Your task to perform on an android device: toggle data saver in the chrome app Image 0: 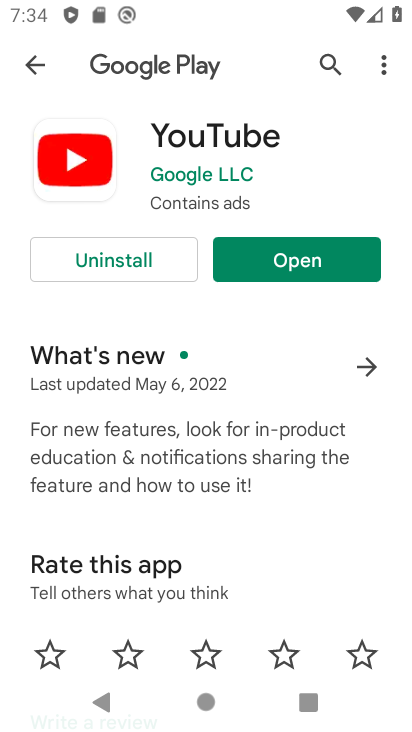
Step 0: press home button
Your task to perform on an android device: toggle data saver in the chrome app Image 1: 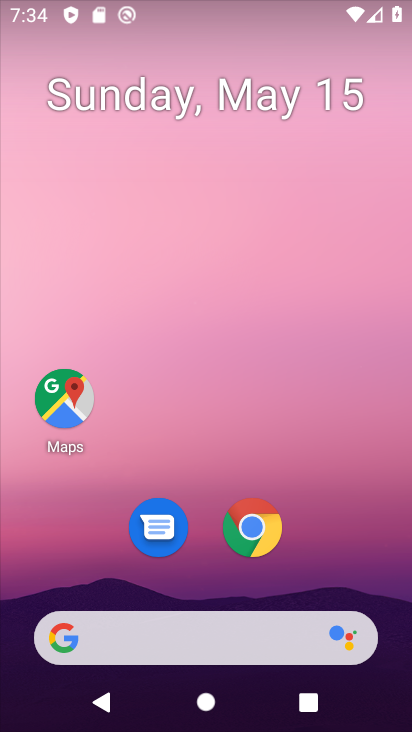
Step 1: click (270, 537)
Your task to perform on an android device: toggle data saver in the chrome app Image 2: 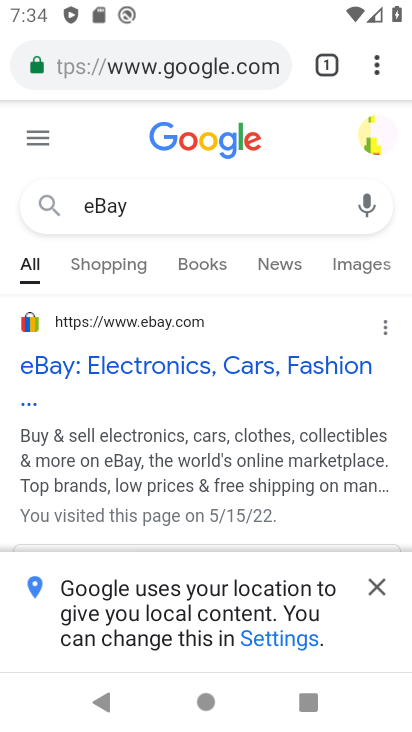
Step 2: click (378, 70)
Your task to perform on an android device: toggle data saver in the chrome app Image 3: 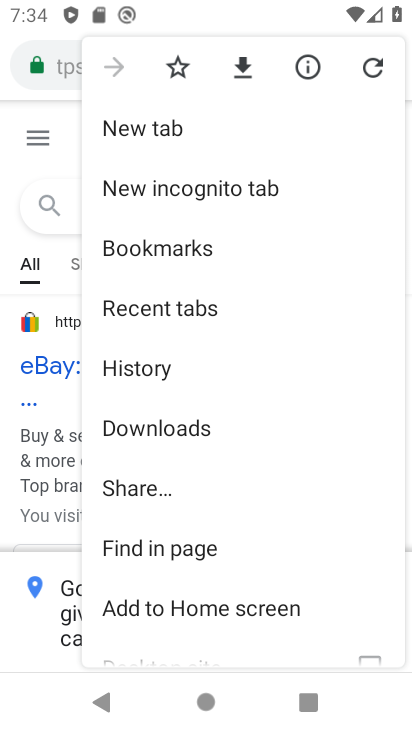
Step 3: drag from (172, 541) to (222, 217)
Your task to perform on an android device: toggle data saver in the chrome app Image 4: 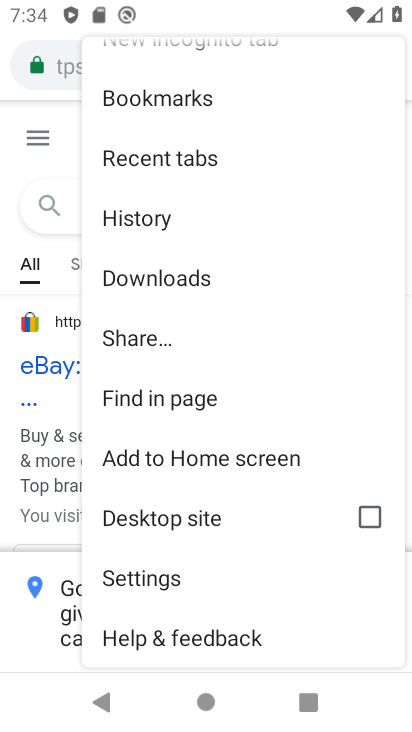
Step 4: click (144, 585)
Your task to perform on an android device: toggle data saver in the chrome app Image 5: 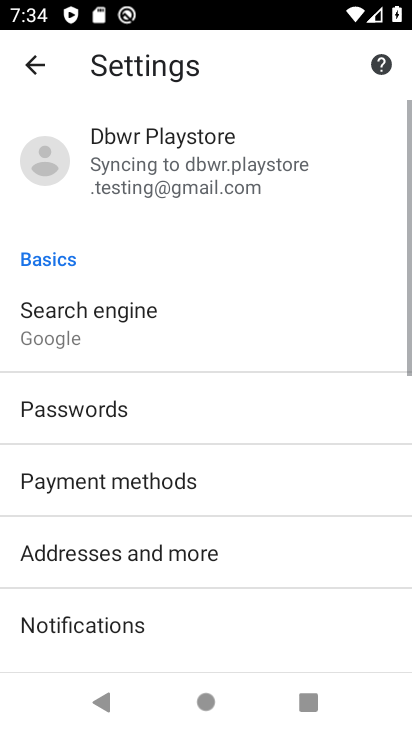
Step 5: drag from (114, 535) to (179, 118)
Your task to perform on an android device: toggle data saver in the chrome app Image 6: 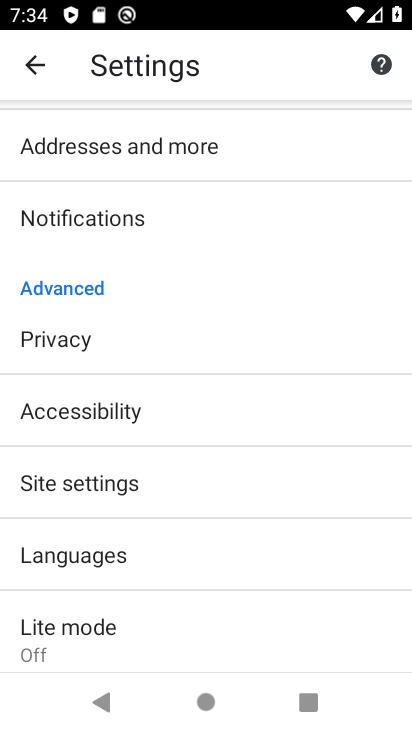
Step 6: drag from (140, 559) to (147, 421)
Your task to perform on an android device: toggle data saver in the chrome app Image 7: 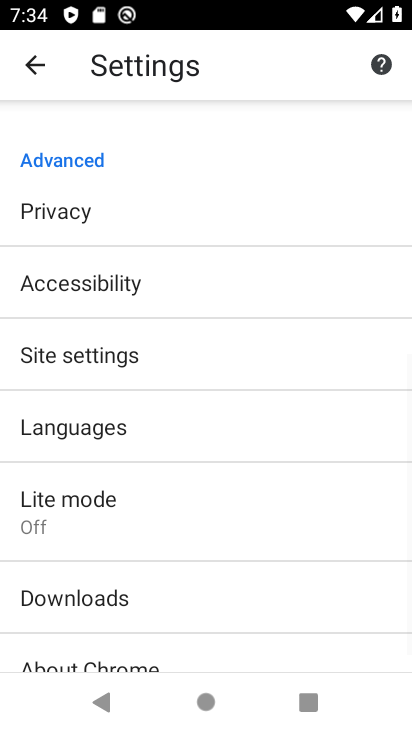
Step 7: click (114, 510)
Your task to perform on an android device: toggle data saver in the chrome app Image 8: 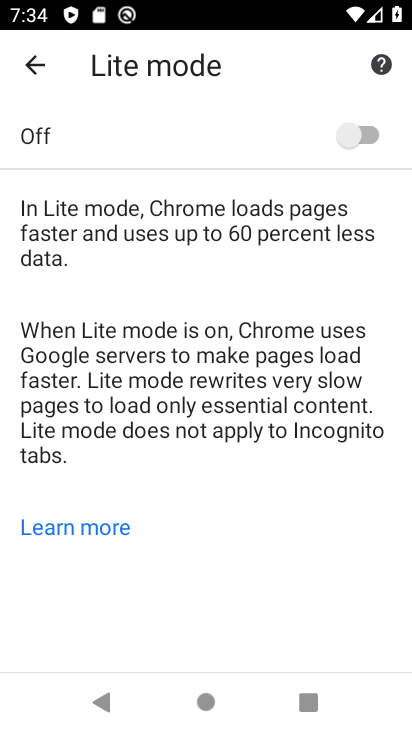
Step 8: click (379, 118)
Your task to perform on an android device: toggle data saver in the chrome app Image 9: 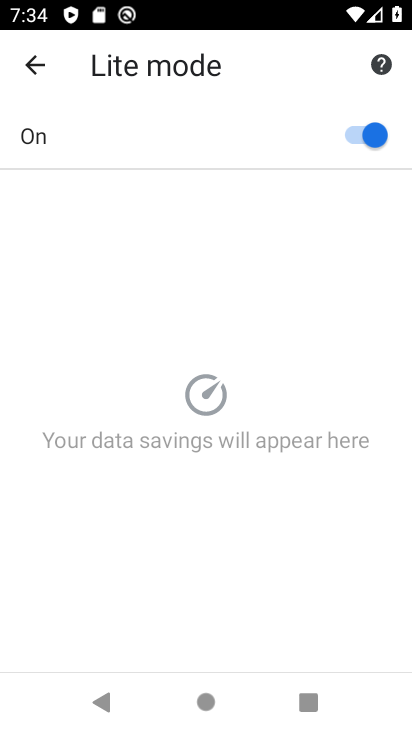
Step 9: task complete